Your task to perform on an android device: Go to Google Image 0: 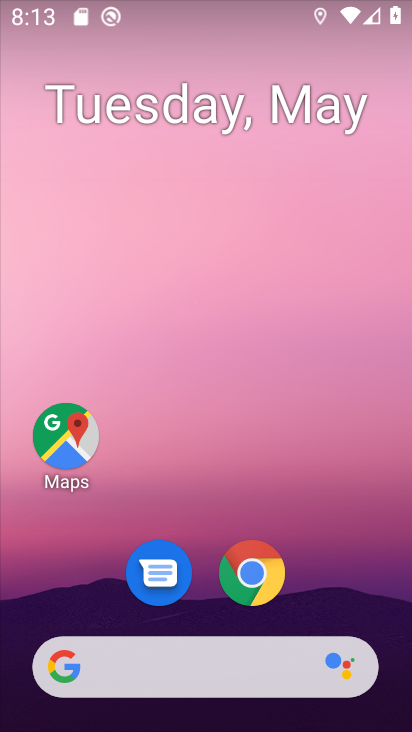
Step 0: drag from (384, 523) to (397, 135)
Your task to perform on an android device: Go to Google Image 1: 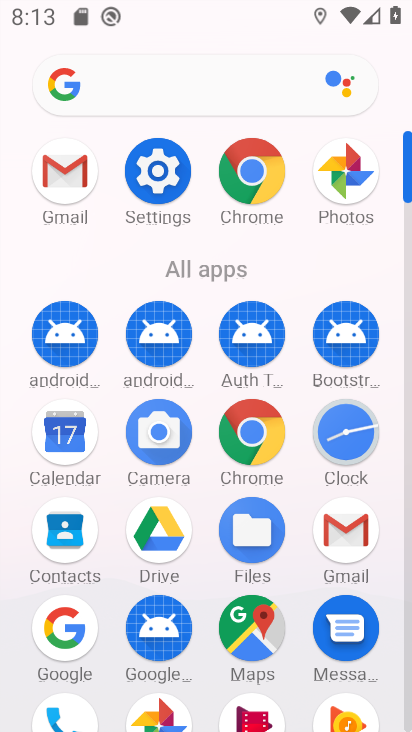
Step 1: click (66, 613)
Your task to perform on an android device: Go to Google Image 2: 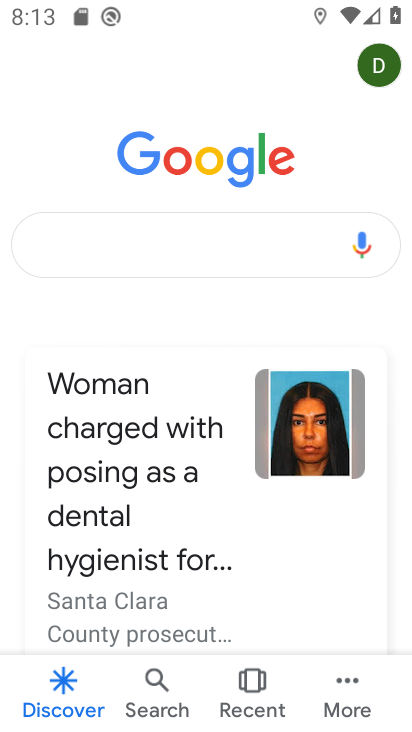
Step 2: task complete